Your task to perform on an android device: Find coffee shops on Maps Image 0: 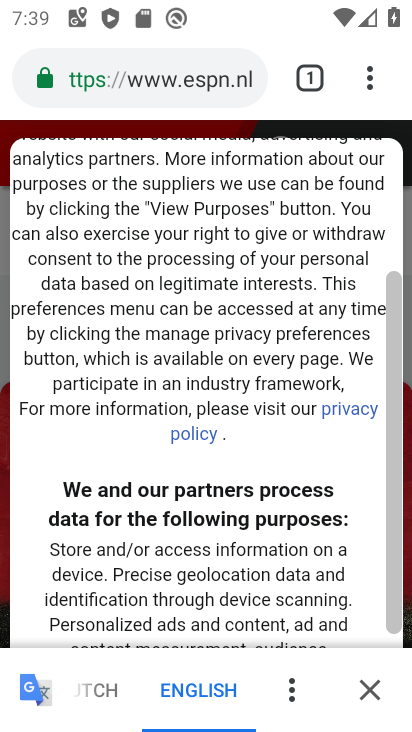
Step 0: press home button
Your task to perform on an android device: Find coffee shops on Maps Image 1: 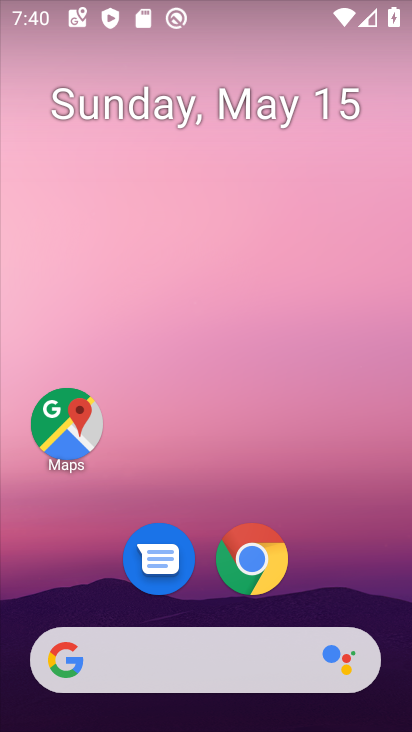
Step 1: click (52, 419)
Your task to perform on an android device: Find coffee shops on Maps Image 2: 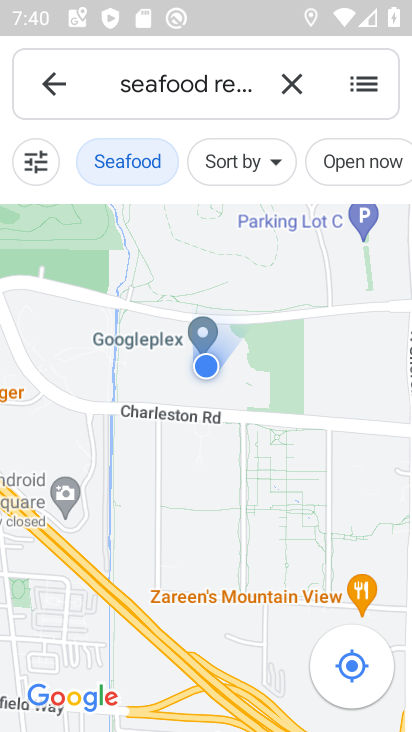
Step 2: click (221, 74)
Your task to perform on an android device: Find coffee shops on Maps Image 3: 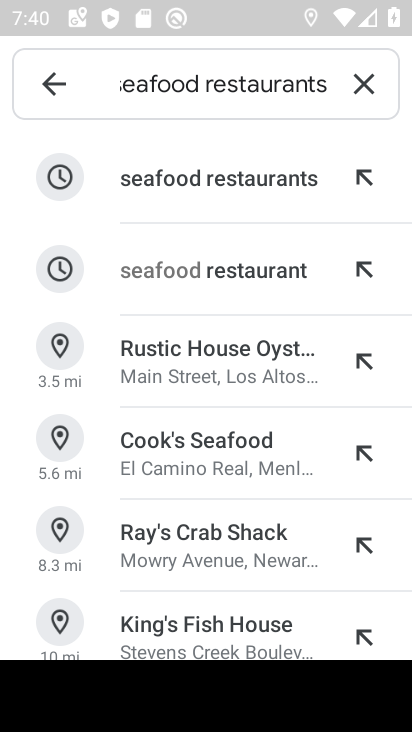
Step 3: type "coo"
Your task to perform on an android device: Find coffee shops on Maps Image 4: 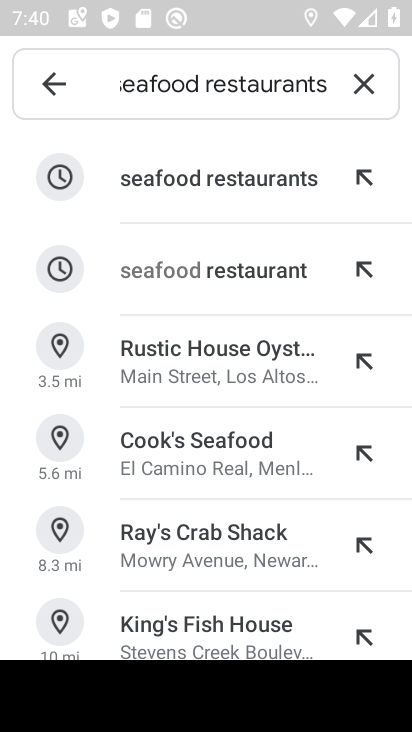
Step 4: click (353, 93)
Your task to perform on an android device: Find coffee shops on Maps Image 5: 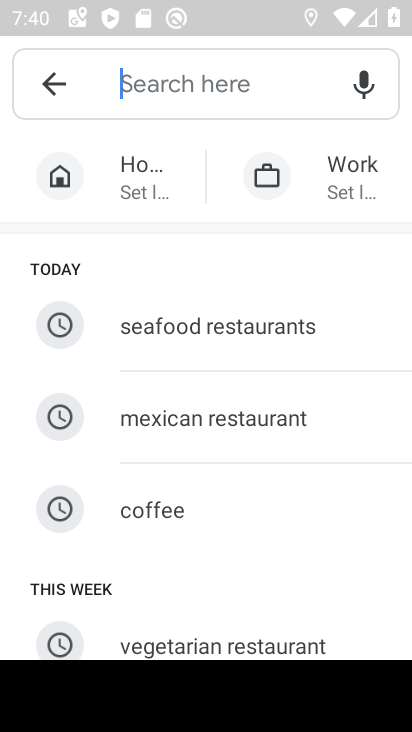
Step 5: click (229, 507)
Your task to perform on an android device: Find coffee shops on Maps Image 6: 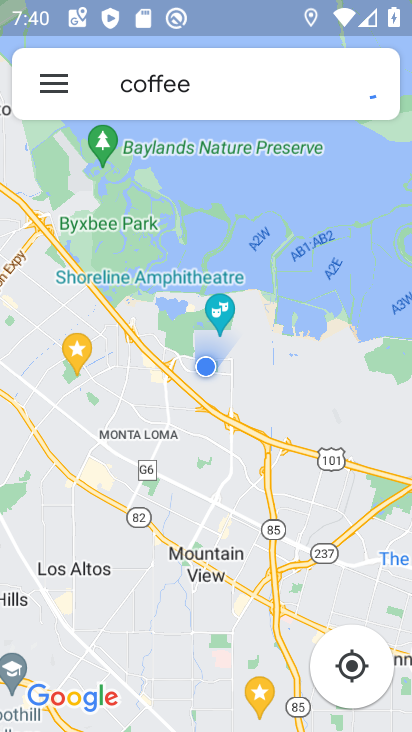
Step 6: task complete